Your task to perform on an android device: turn notification dots on Image 0: 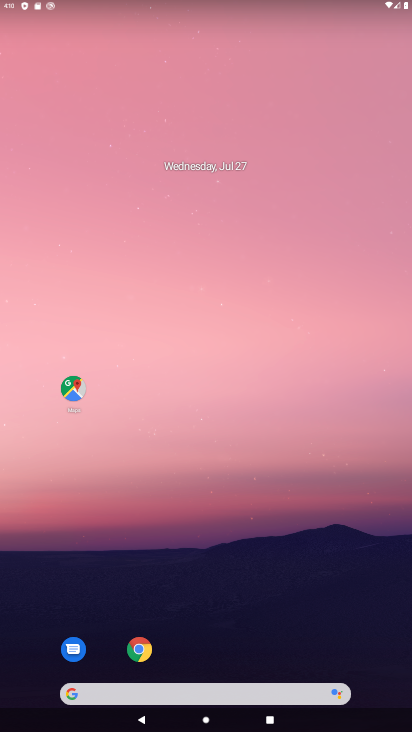
Step 0: drag from (179, 592) to (152, 217)
Your task to perform on an android device: turn notification dots on Image 1: 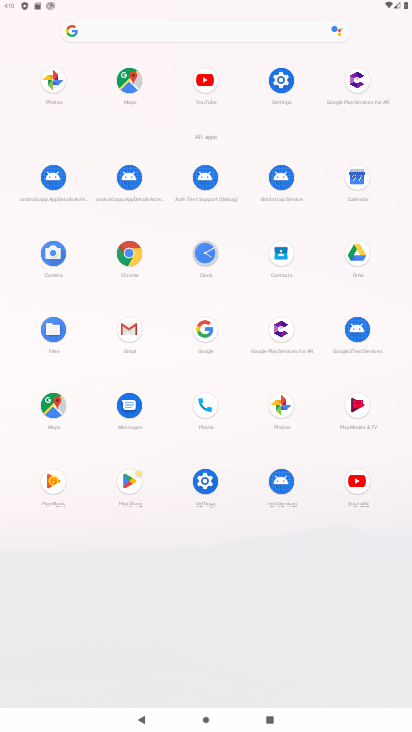
Step 1: click (277, 83)
Your task to perform on an android device: turn notification dots on Image 2: 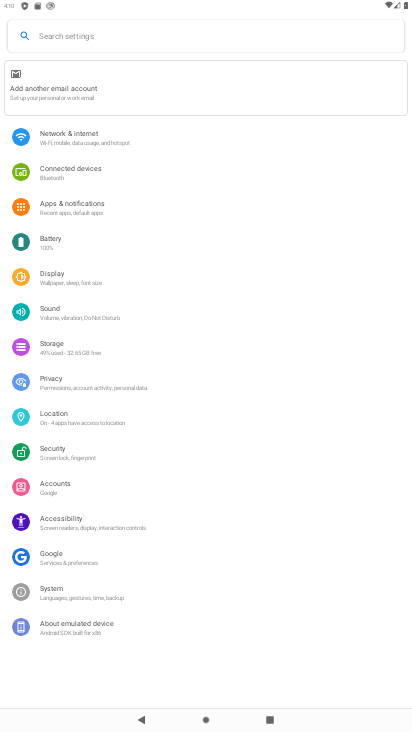
Step 2: click (60, 208)
Your task to perform on an android device: turn notification dots on Image 3: 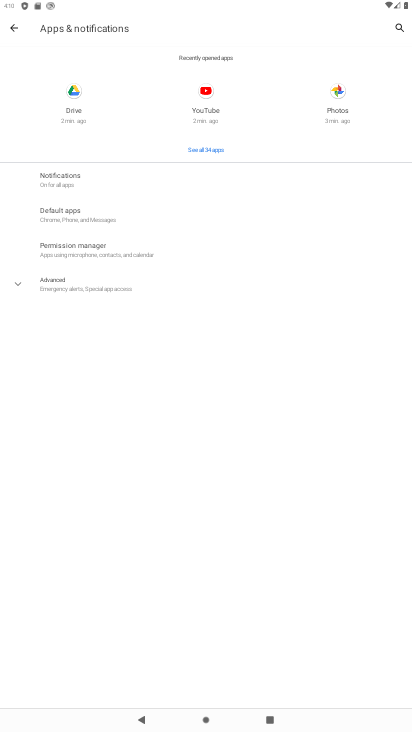
Step 3: click (54, 183)
Your task to perform on an android device: turn notification dots on Image 4: 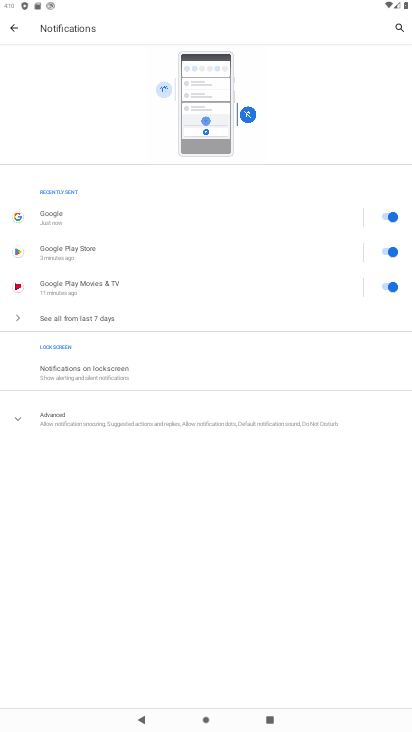
Step 4: click (52, 415)
Your task to perform on an android device: turn notification dots on Image 5: 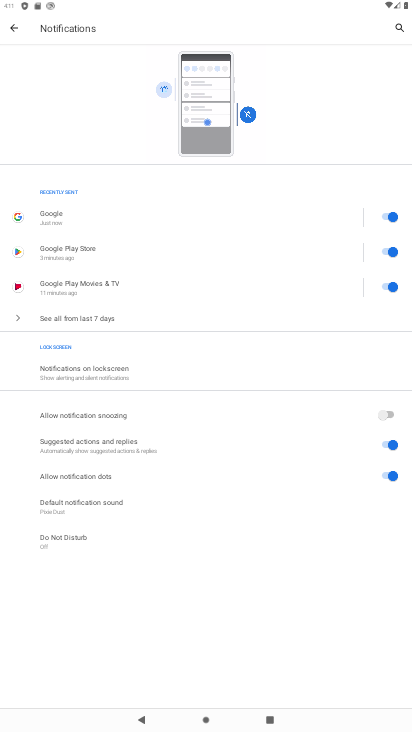
Step 5: click (380, 476)
Your task to perform on an android device: turn notification dots on Image 6: 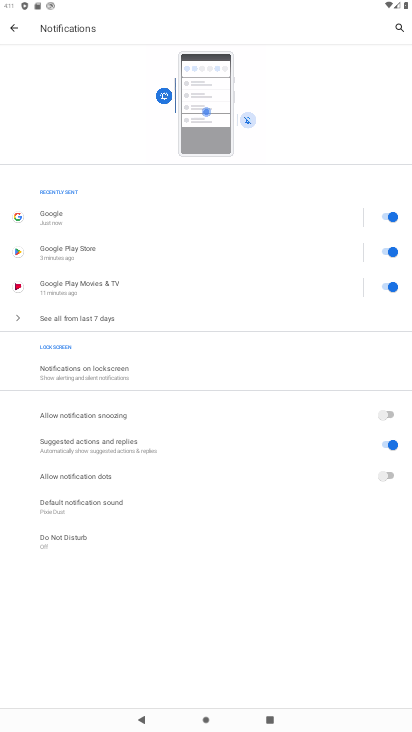
Step 6: task complete